Your task to perform on an android device: Open wifi settings Image 0: 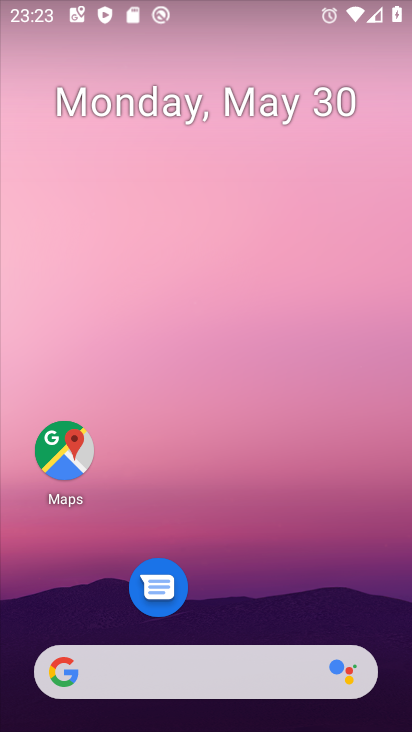
Step 0: click (211, 87)
Your task to perform on an android device: Open wifi settings Image 1: 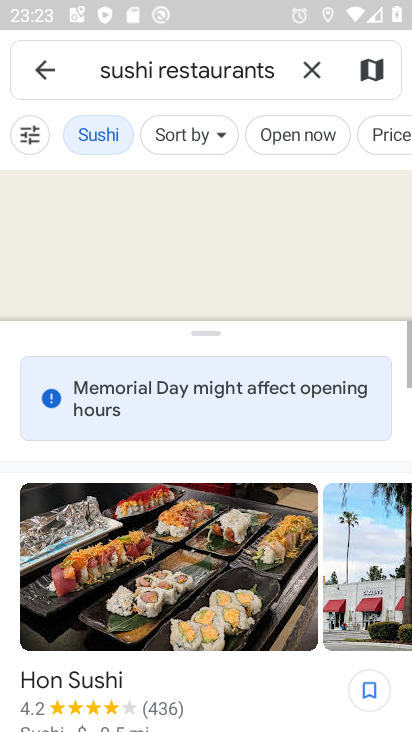
Step 1: press home button
Your task to perform on an android device: Open wifi settings Image 2: 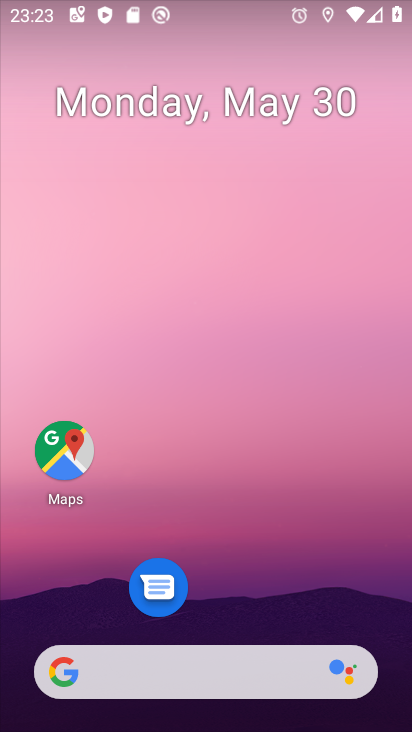
Step 2: drag from (236, 645) to (167, 21)
Your task to perform on an android device: Open wifi settings Image 3: 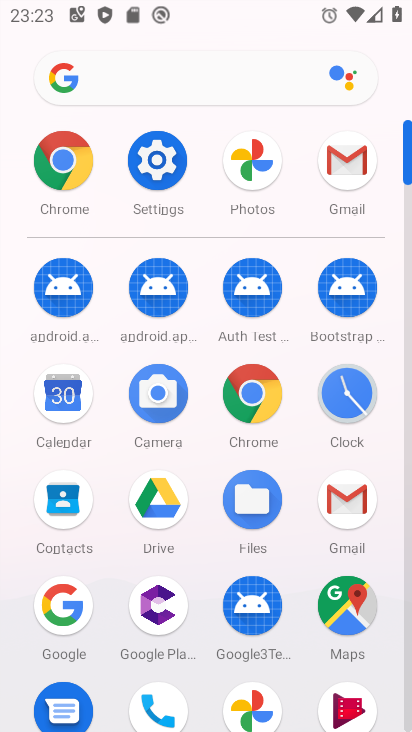
Step 3: click (154, 174)
Your task to perform on an android device: Open wifi settings Image 4: 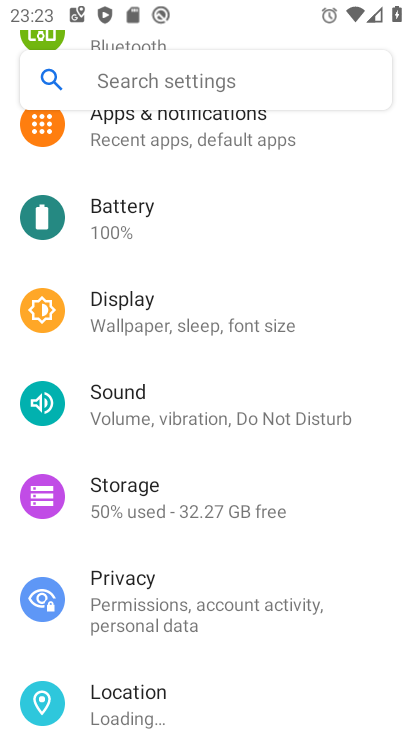
Step 4: drag from (154, 190) to (157, 654)
Your task to perform on an android device: Open wifi settings Image 5: 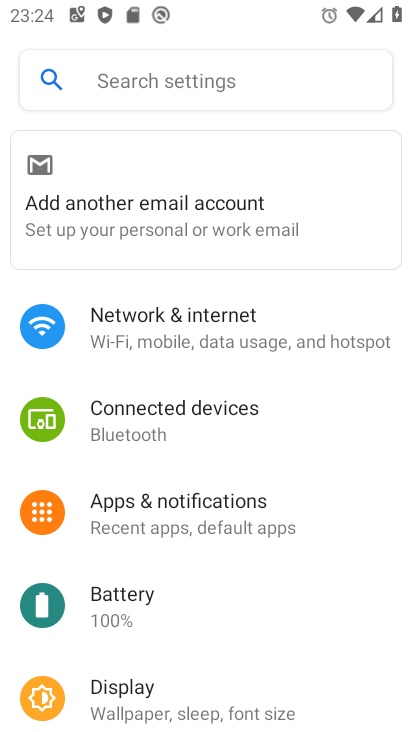
Step 5: click (147, 358)
Your task to perform on an android device: Open wifi settings Image 6: 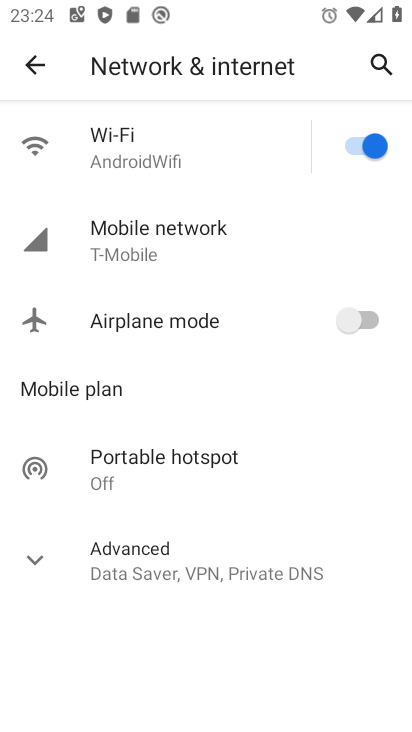
Step 6: click (127, 149)
Your task to perform on an android device: Open wifi settings Image 7: 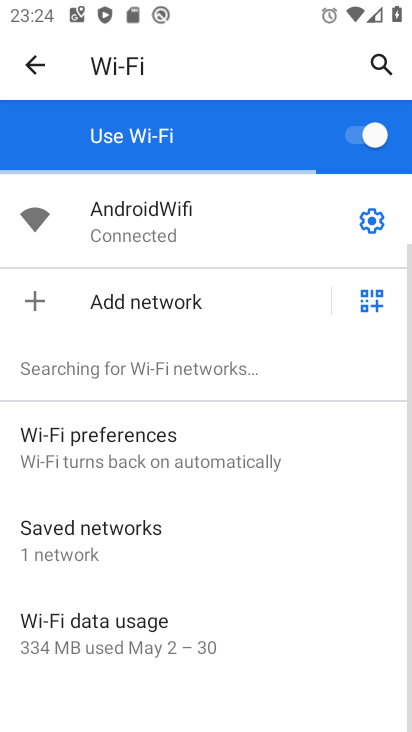
Step 7: task complete